Your task to perform on an android device: Open Google Chrome and open the bookmarks view Image 0: 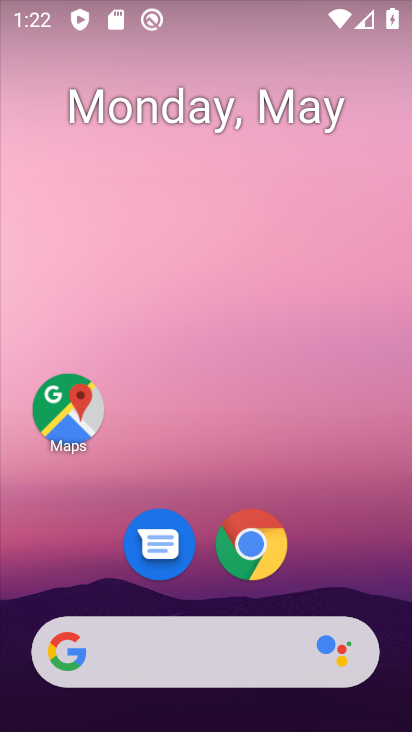
Step 0: drag from (368, 564) to (372, 218)
Your task to perform on an android device: Open Google Chrome and open the bookmarks view Image 1: 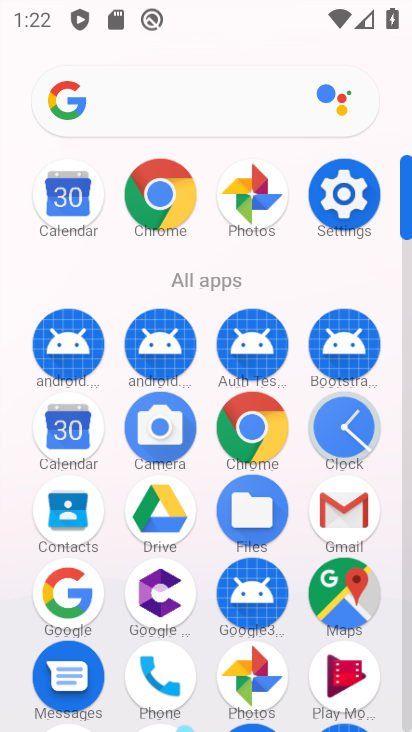
Step 1: click (266, 443)
Your task to perform on an android device: Open Google Chrome and open the bookmarks view Image 2: 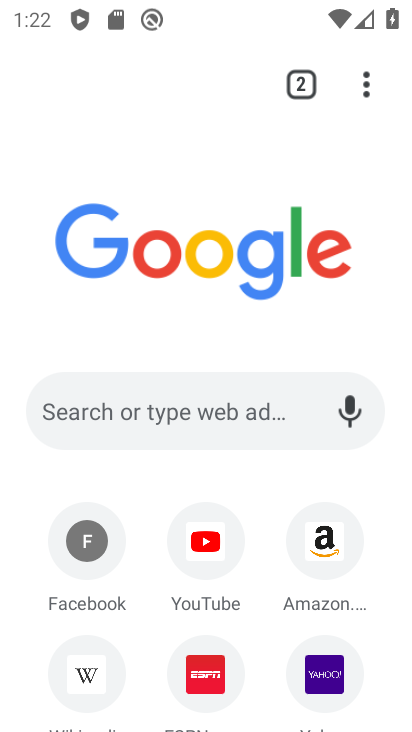
Step 2: click (368, 90)
Your task to perform on an android device: Open Google Chrome and open the bookmarks view Image 3: 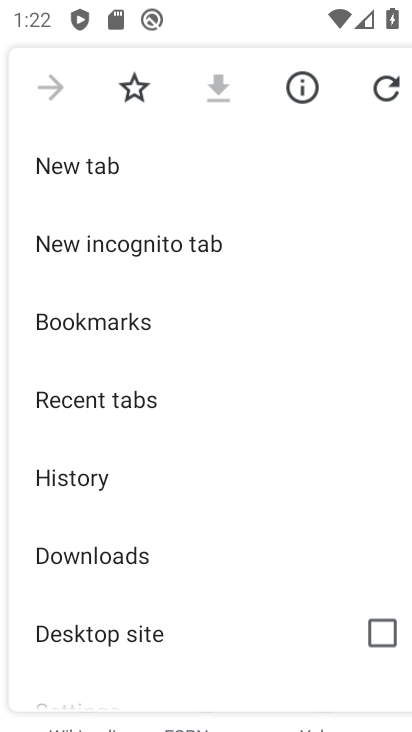
Step 3: click (168, 326)
Your task to perform on an android device: Open Google Chrome and open the bookmarks view Image 4: 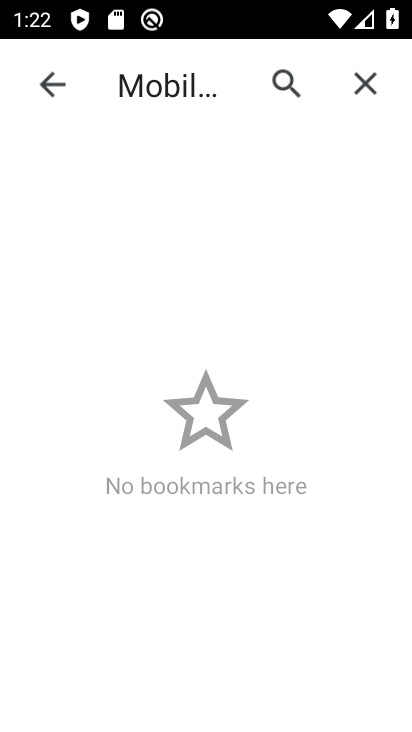
Step 4: task complete